Your task to perform on an android device: Open the calendar and show me this week's events Image 0: 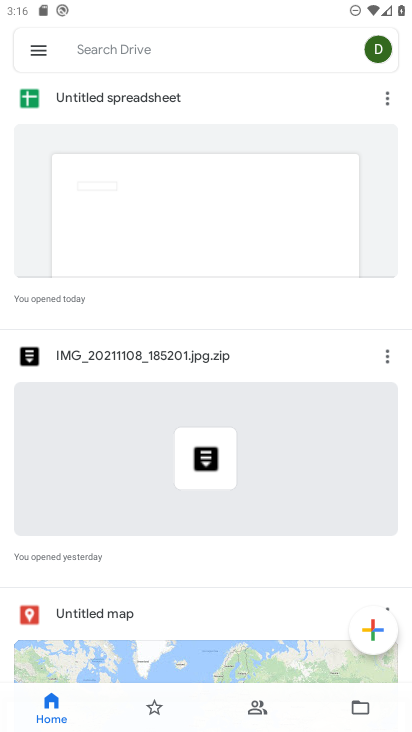
Step 0: press home button
Your task to perform on an android device: Open the calendar and show me this week's events Image 1: 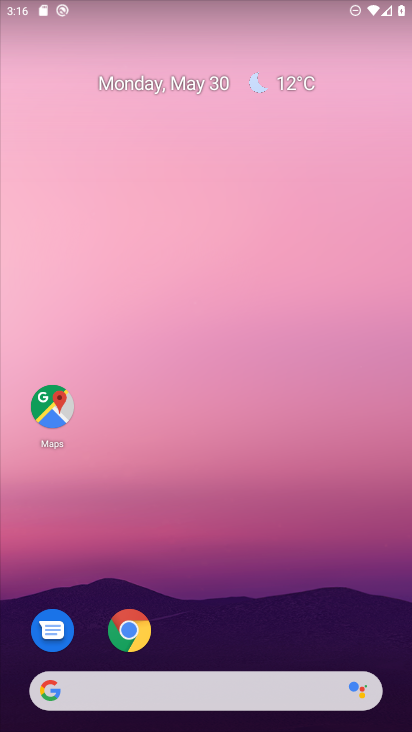
Step 1: drag from (216, 683) to (216, 3)
Your task to perform on an android device: Open the calendar and show me this week's events Image 2: 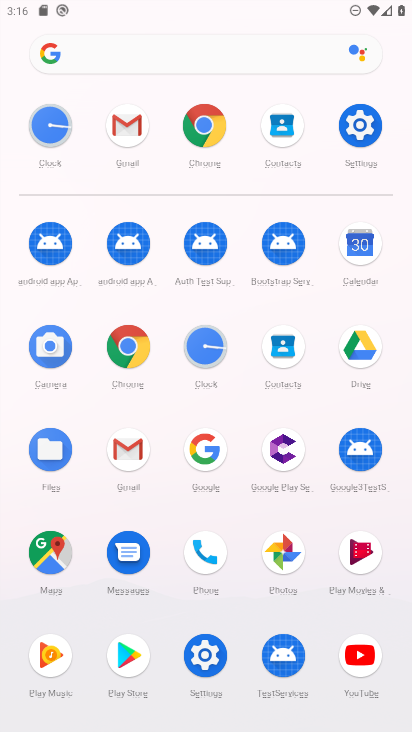
Step 2: click (347, 246)
Your task to perform on an android device: Open the calendar and show me this week's events Image 3: 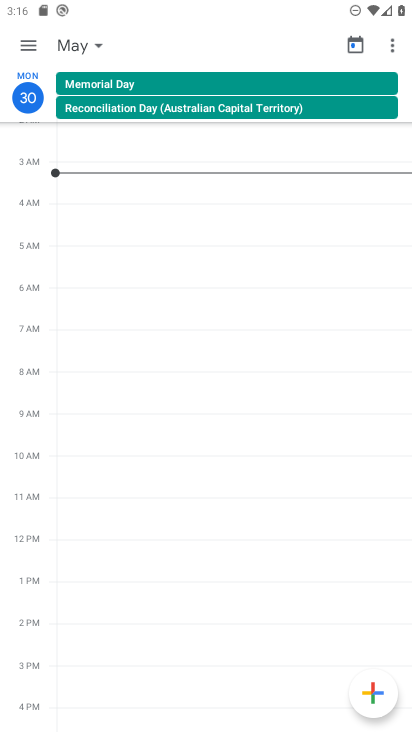
Step 3: click (24, 36)
Your task to perform on an android device: Open the calendar and show me this week's events Image 4: 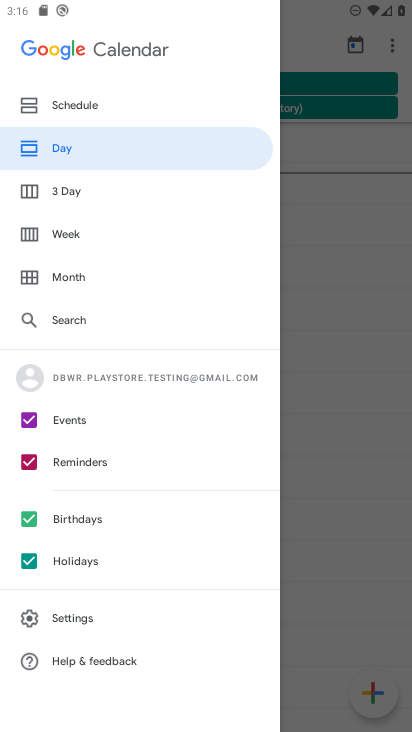
Step 4: click (55, 235)
Your task to perform on an android device: Open the calendar and show me this week's events Image 5: 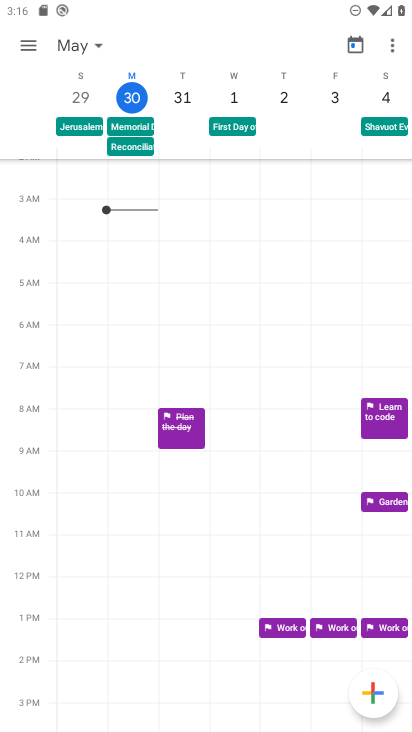
Step 5: task complete